Your task to perform on an android device: change the clock display to show seconds Image 0: 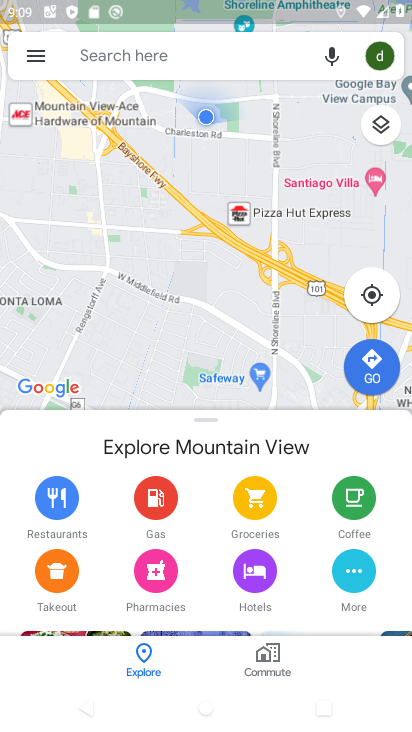
Step 0: press home button
Your task to perform on an android device: change the clock display to show seconds Image 1: 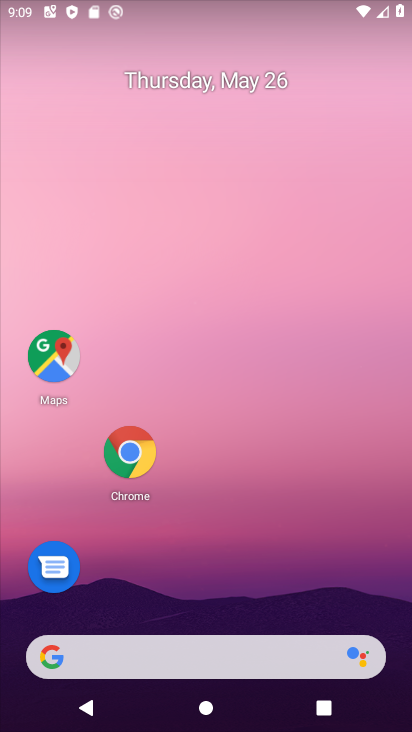
Step 1: drag from (208, 654) to (373, 133)
Your task to perform on an android device: change the clock display to show seconds Image 2: 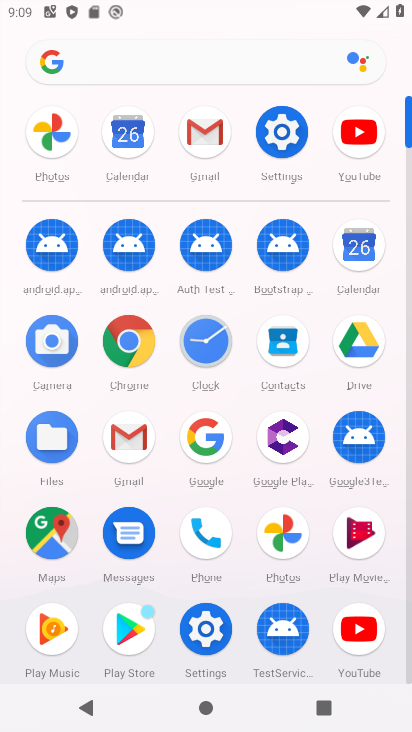
Step 2: click (201, 351)
Your task to perform on an android device: change the clock display to show seconds Image 3: 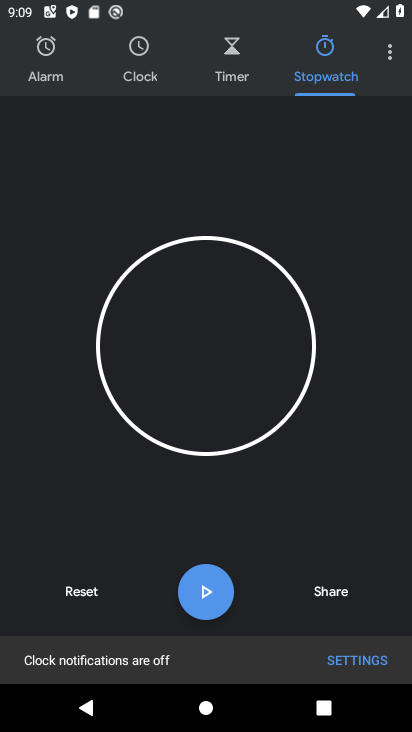
Step 3: click (389, 54)
Your task to perform on an android device: change the clock display to show seconds Image 4: 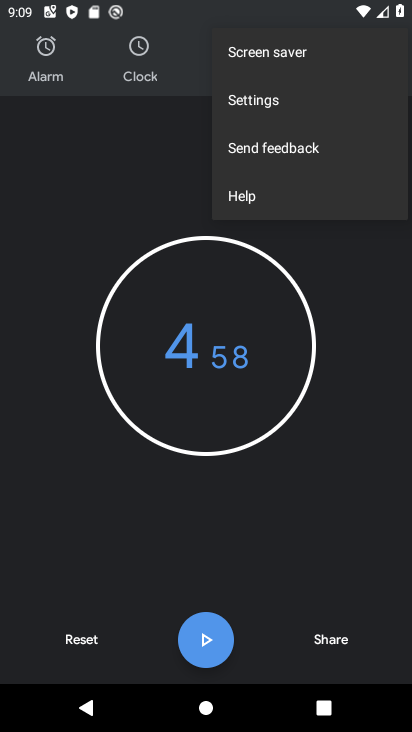
Step 4: click (268, 107)
Your task to perform on an android device: change the clock display to show seconds Image 5: 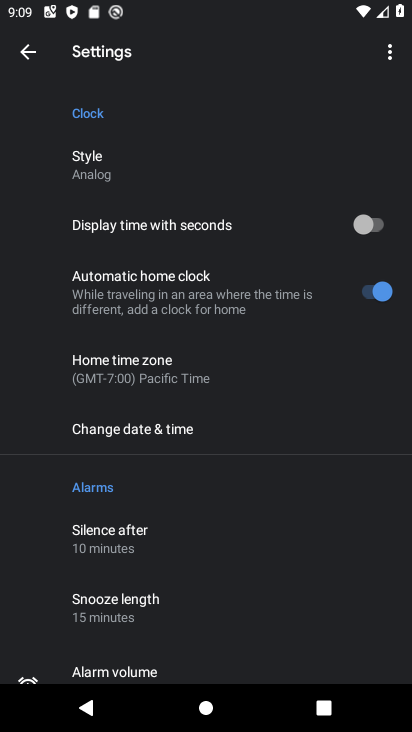
Step 5: click (380, 227)
Your task to perform on an android device: change the clock display to show seconds Image 6: 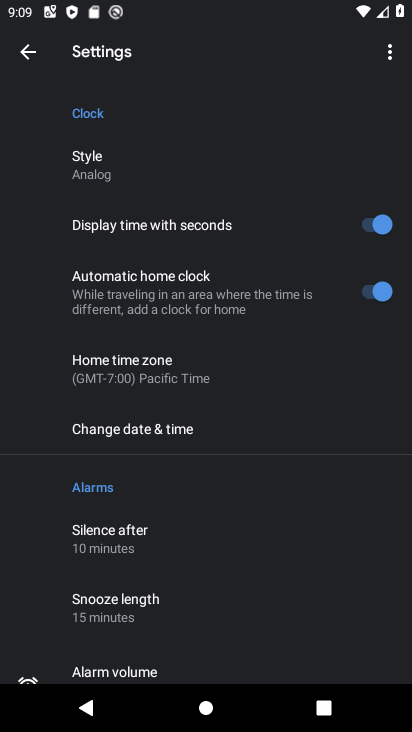
Step 6: task complete